Your task to perform on an android device: Open calendar and show me the second week of next month Image 0: 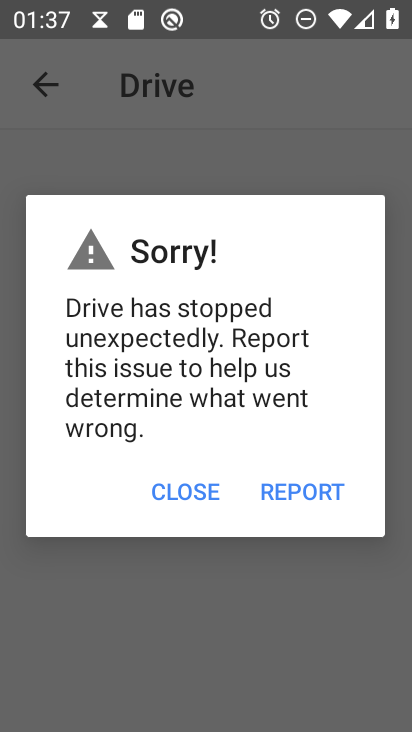
Step 0: press home button
Your task to perform on an android device: Open calendar and show me the second week of next month Image 1: 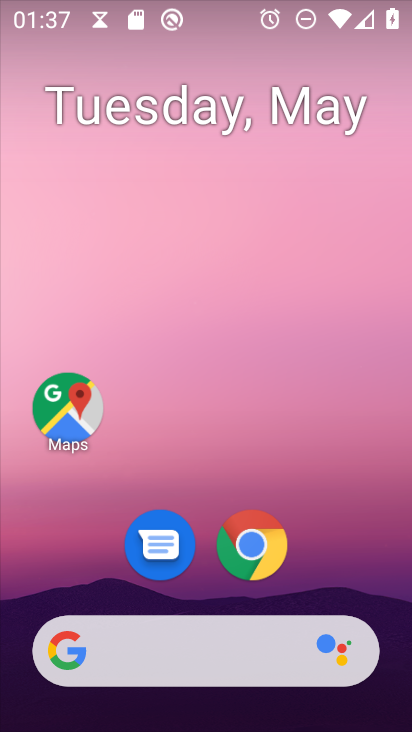
Step 1: drag from (299, 584) to (362, 32)
Your task to perform on an android device: Open calendar and show me the second week of next month Image 2: 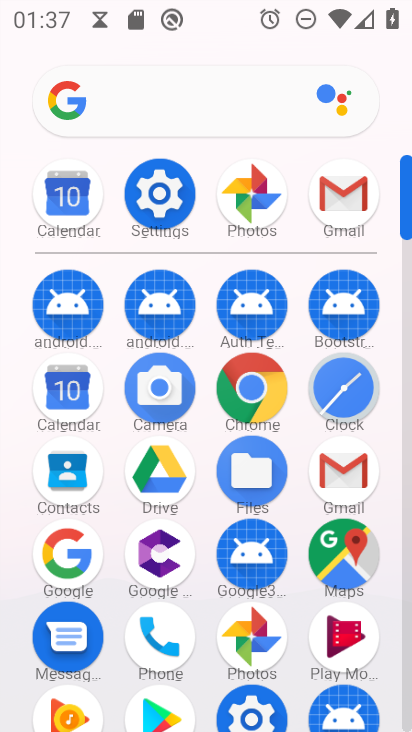
Step 2: click (81, 173)
Your task to perform on an android device: Open calendar and show me the second week of next month Image 3: 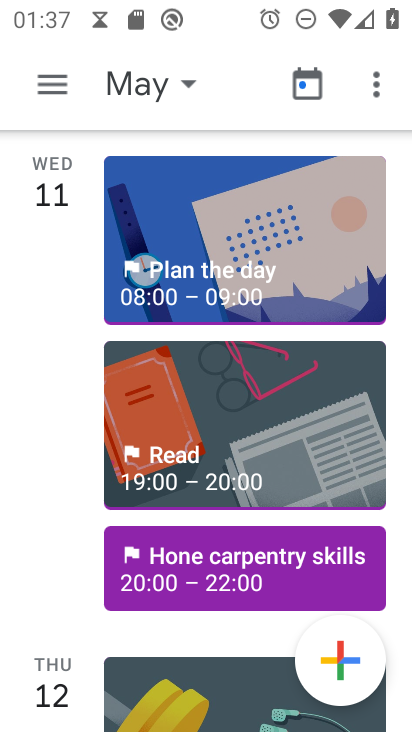
Step 3: click (180, 77)
Your task to perform on an android device: Open calendar and show me the second week of next month Image 4: 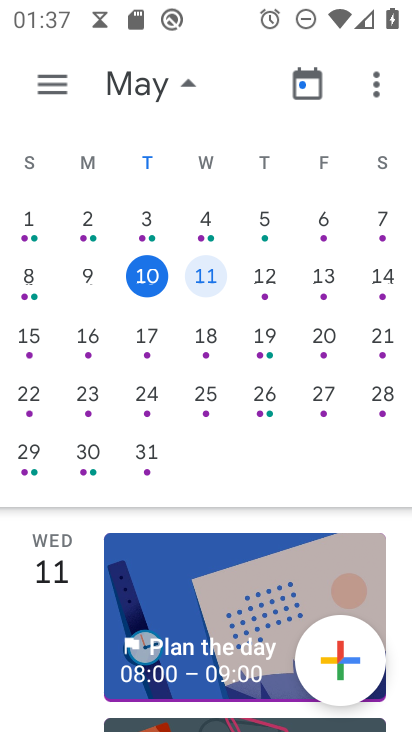
Step 4: drag from (378, 415) to (21, 386)
Your task to perform on an android device: Open calendar and show me the second week of next month Image 5: 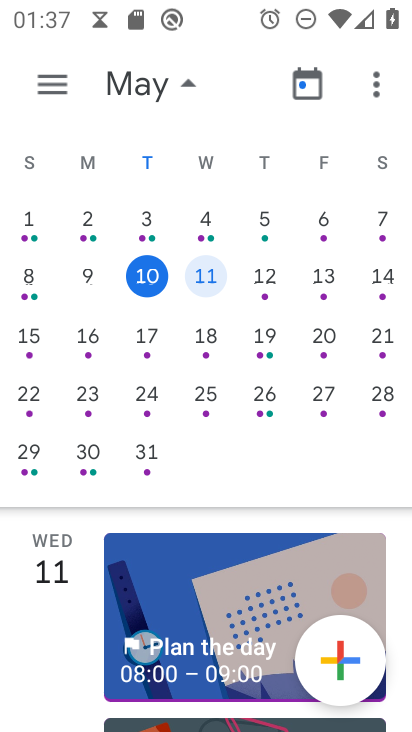
Step 5: drag from (354, 310) to (14, 228)
Your task to perform on an android device: Open calendar and show me the second week of next month Image 6: 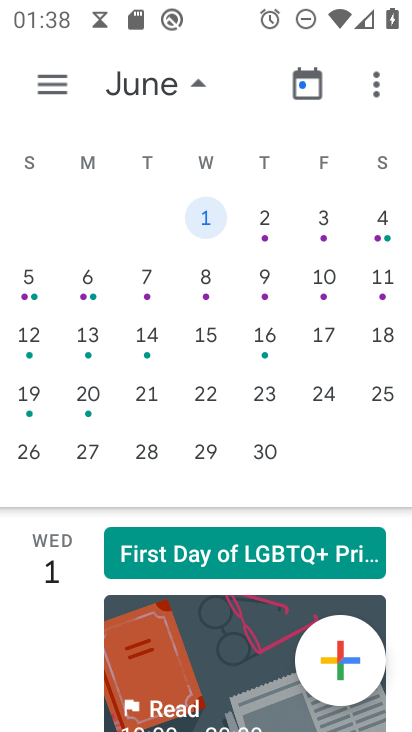
Step 6: click (39, 280)
Your task to perform on an android device: Open calendar and show me the second week of next month Image 7: 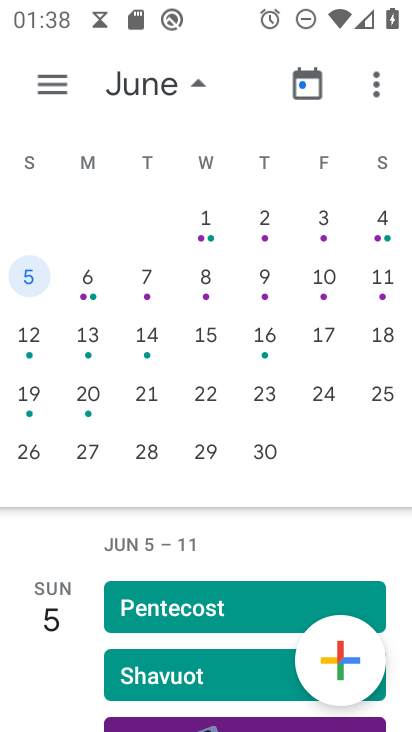
Step 7: task complete